Your task to perform on an android device: empty trash in the gmail app Image 0: 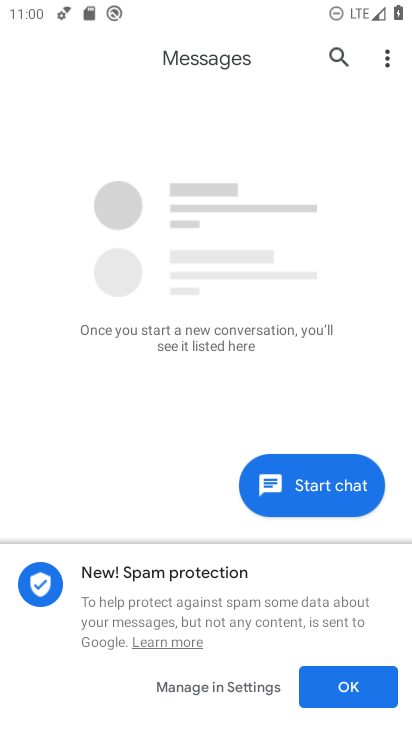
Step 0: press home button
Your task to perform on an android device: empty trash in the gmail app Image 1: 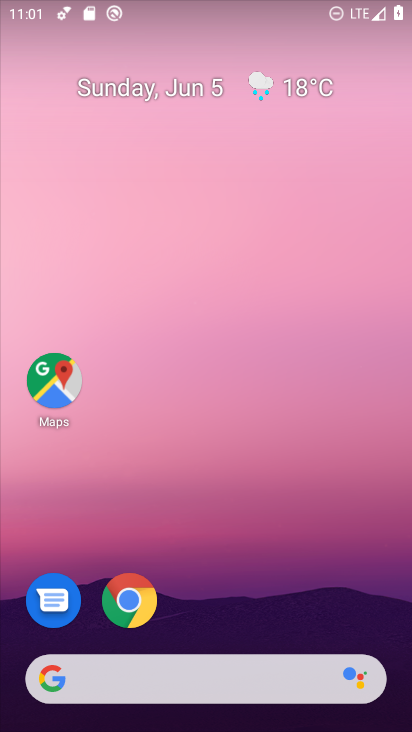
Step 1: drag from (226, 630) to (223, 200)
Your task to perform on an android device: empty trash in the gmail app Image 2: 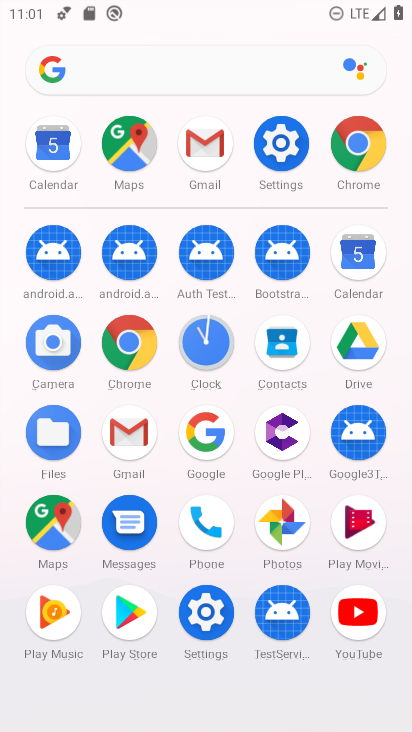
Step 2: click (210, 149)
Your task to perform on an android device: empty trash in the gmail app Image 3: 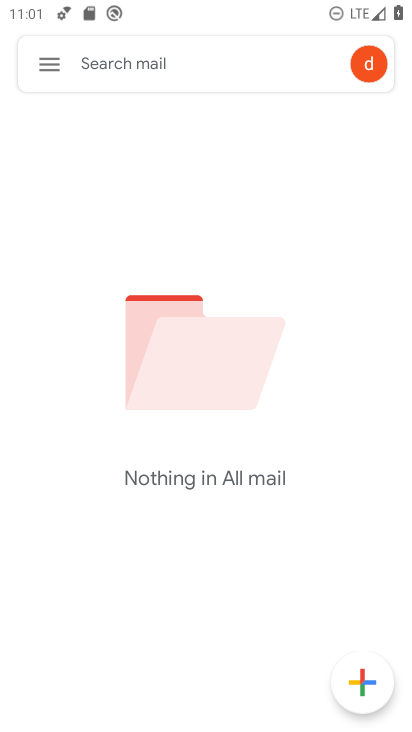
Step 3: click (46, 71)
Your task to perform on an android device: empty trash in the gmail app Image 4: 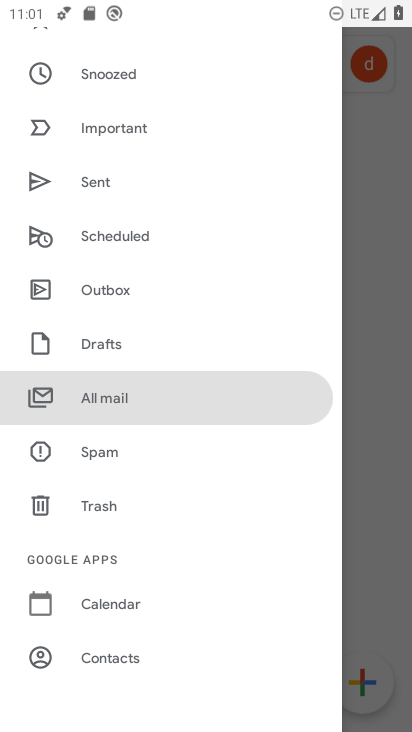
Step 4: click (123, 511)
Your task to perform on an android device: empty trash in the gmail app Image 5: 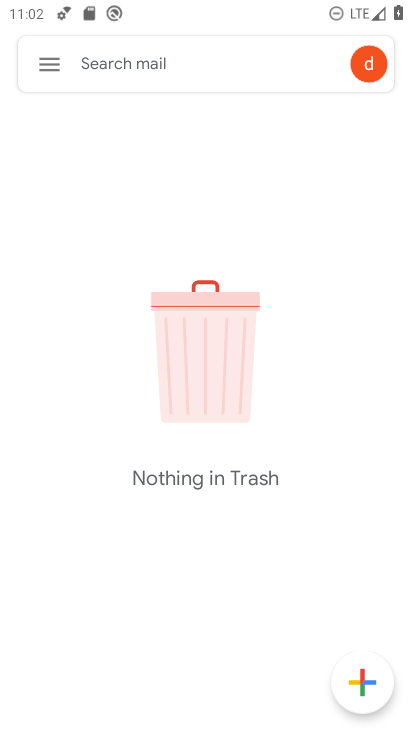
Step 5: task complete